Your task to perform on an android device: What's the weather going to be this weekend? Image 0: 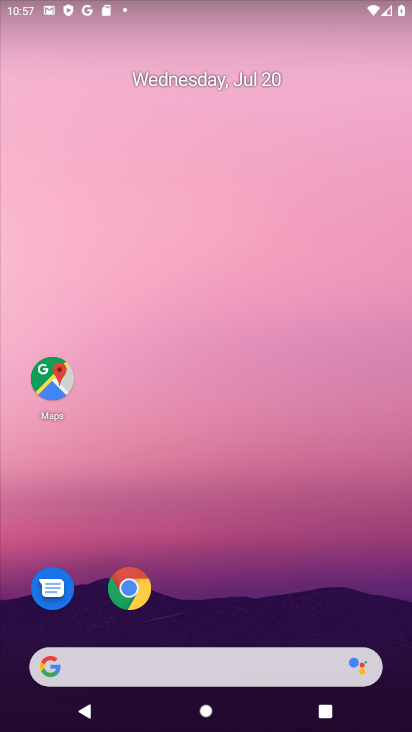
Step 0: drag from (201, 618) to (215, 9)
Your task to perform on an android device: What's the weather going to be this weekend? Image 1: 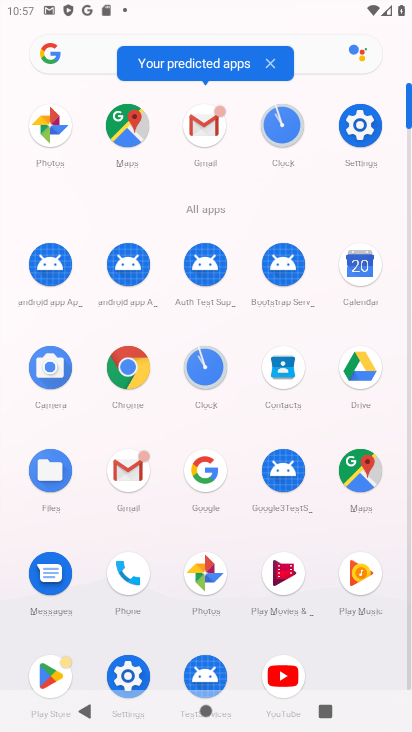
Step 1: drag from (184, 620) to (153, 208)
Your task to perform on an android device: What's the weather going to be this weekend? Image 2: 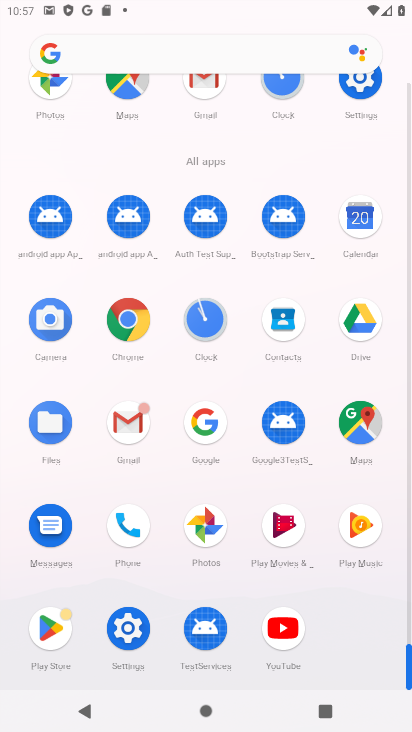
Step 2: click (116, 62)
Your task to perform on an android device: What's the weather going to be this weekend? Image 3: 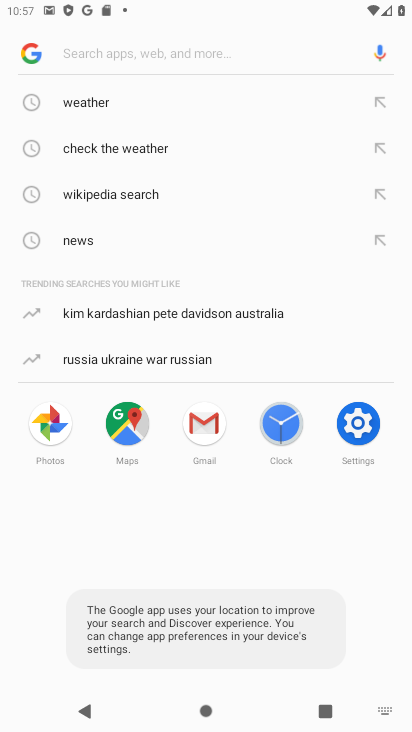
Step 3: click (84, 112)
Your task to perform on an android device: What's the weather going to be this weekend? Image 4: 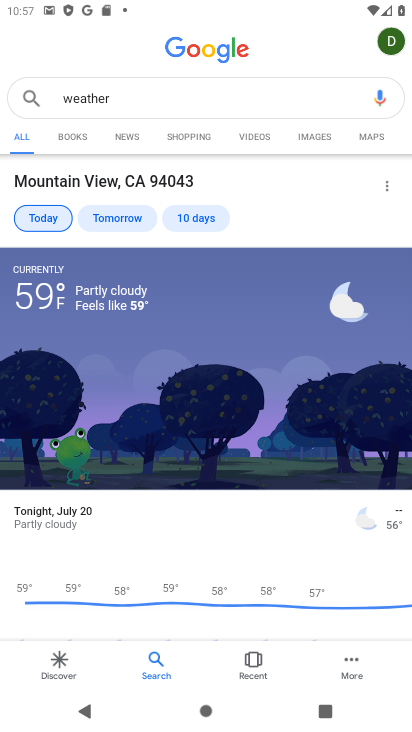
Step 4: click (111, 93)
Your task to perform on an android device: What's the weather going to be this weekend? Image 5: 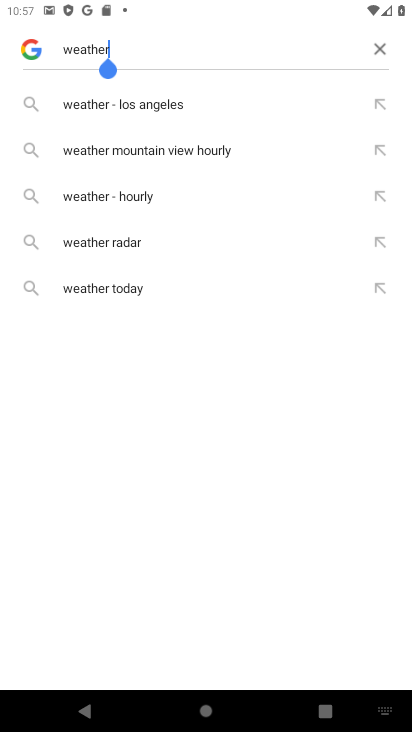
Step 5: click (370, 52)
Your task to perform on an android device: What's the weather going to be this weekend? Image 6: 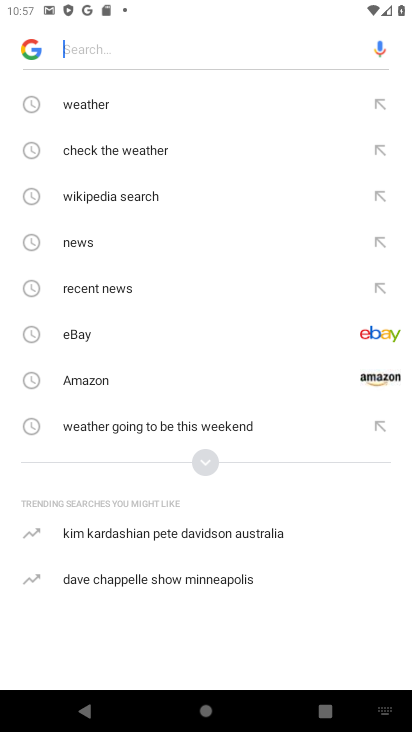
Step 6: click (94, 48)
Your task to perform on an android device: What's the weather going to be this weekend? Image 7: 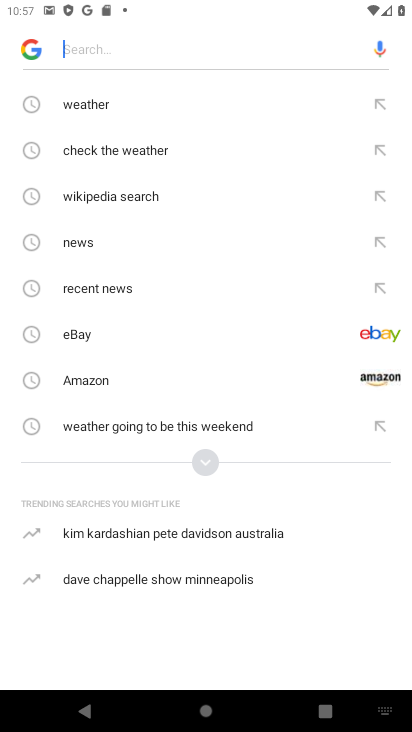
Step 7: type "What's the weather going to be this weekend?"
Your task to perform on an android device: What's the weather going to be this weekend? Image 8: 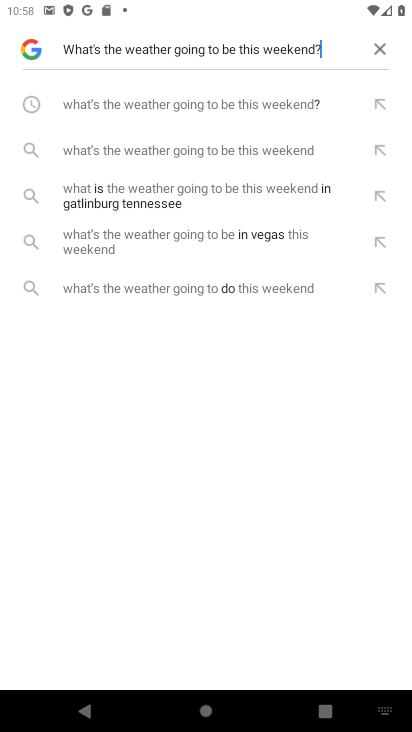
Step 8: type ""
Your task to perform on an android device: What's the weather going to be this weekend? Image 9: 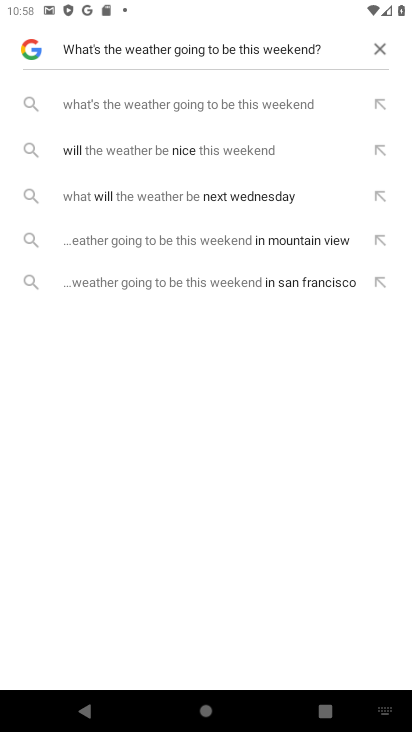
Step 9: click (212, 107)
Your task to perform on an android device: What's the weather going to be this weekend? Image 10: 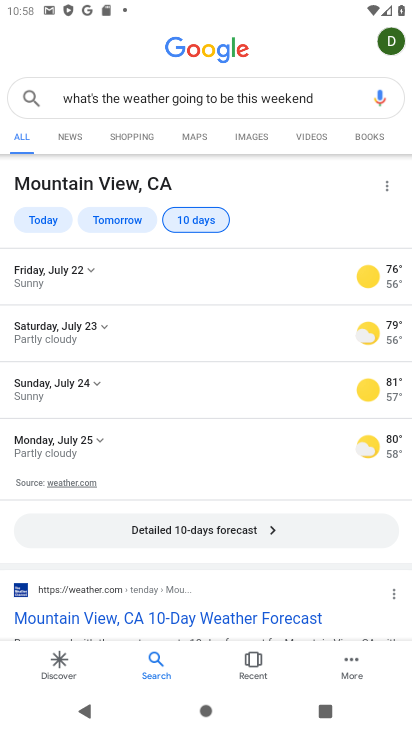
Step 10: task complete